Your task to perform on an android device: toggle show notifications on the lock screen Image 0: 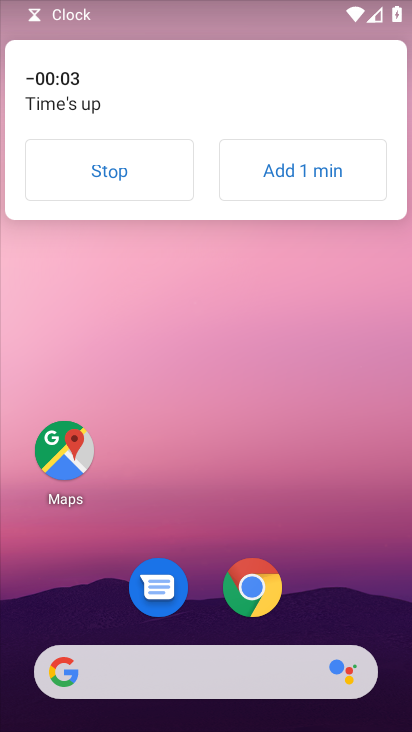
Step 0: drag from (245, 698) to (288, 203)
Your task to perform on an android device: toggle show notifications on the lock screen Image 1: 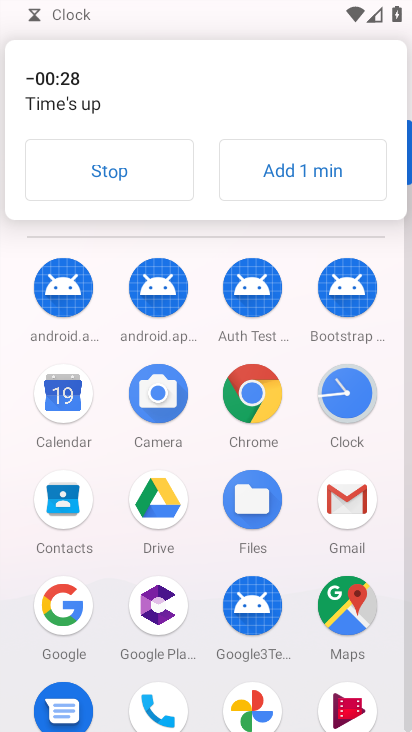
Step 1: click (91, 165)
Your task to perform on an android device: toggle show notifications on the lock screen Image 2: 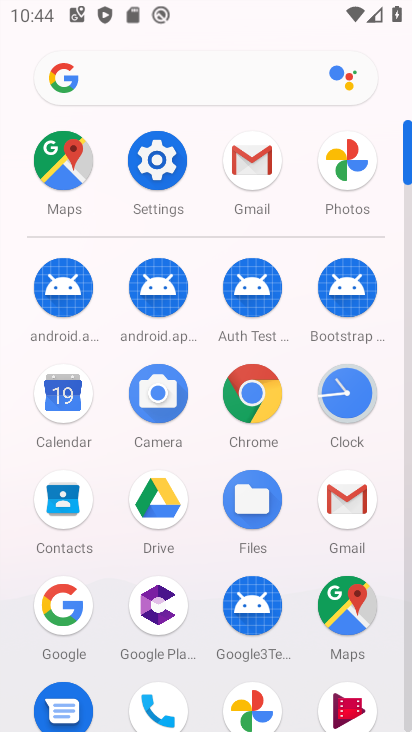
Step 2: click (161, 164)
Your task to perform on an android device: toggle show notifications on the lock screen Image 3: 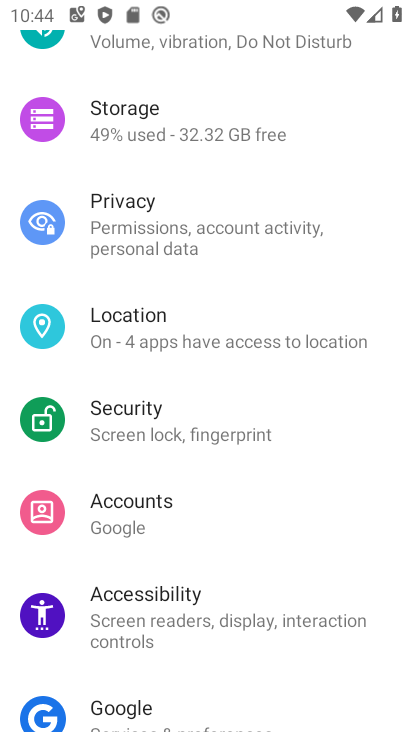
Step 3: drag from (163, 233) to (115, 731)
Your task to perform on an android device: toggle show notifications on the lock screen Image 4: 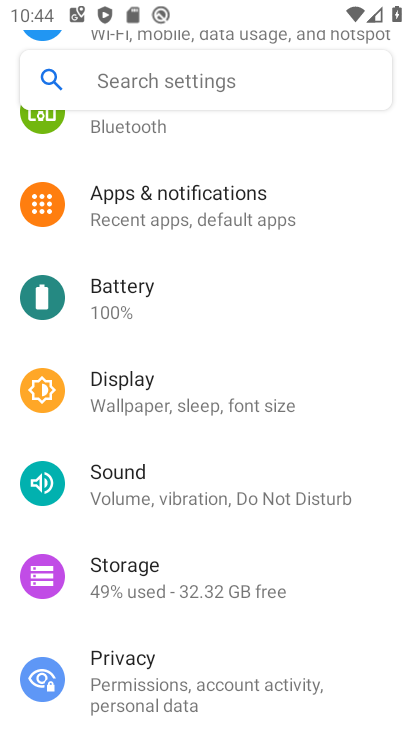
Step 4: click (190, 204)
Your task to perform on an android device: toggle show notifications on the lock screen Image 5: 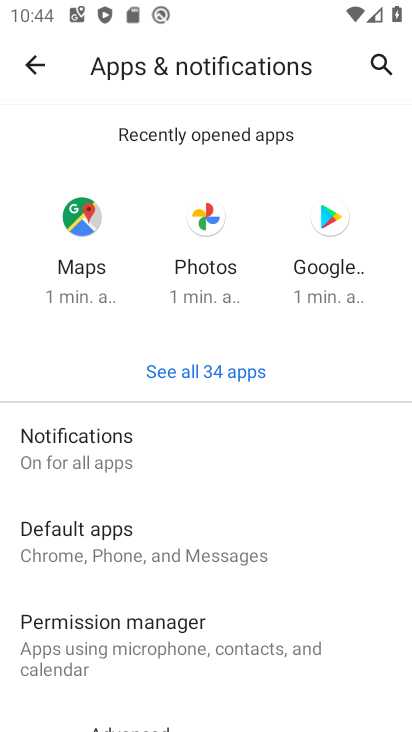
Step 5: click (138, 444)
Your task to perform on an android device: toggle show notifications on the lock screen Image 6: 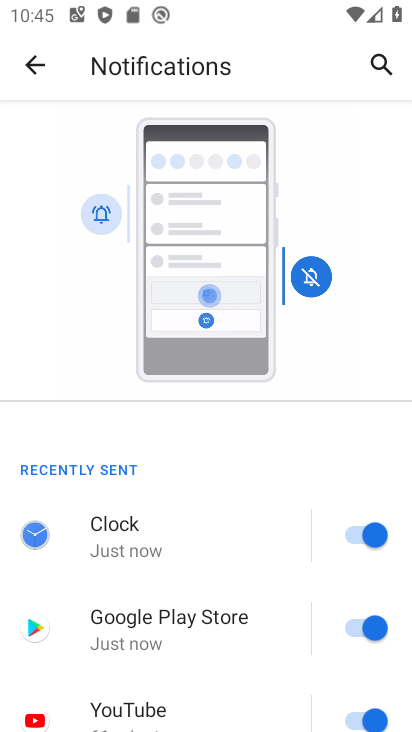
Step 6: drag from (150, 668) to (149, 276)
Your task to perform on an android device: toggle show notifications on the lock screen Image 7: 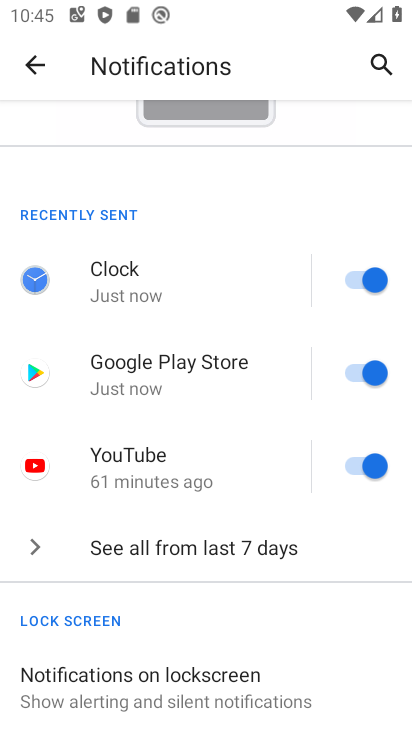
Step 7: drag from (216, 659) to (181, 299)
Your task to perform on an android device: toggle show notifications on the lock screen Image 8: 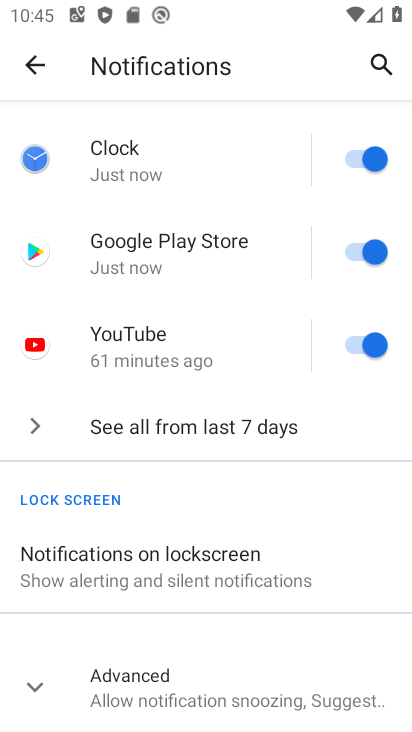
Step 8: click (174, 556)
Your task to perform on an android device: toggle show notifications on the lock screen Image 9: 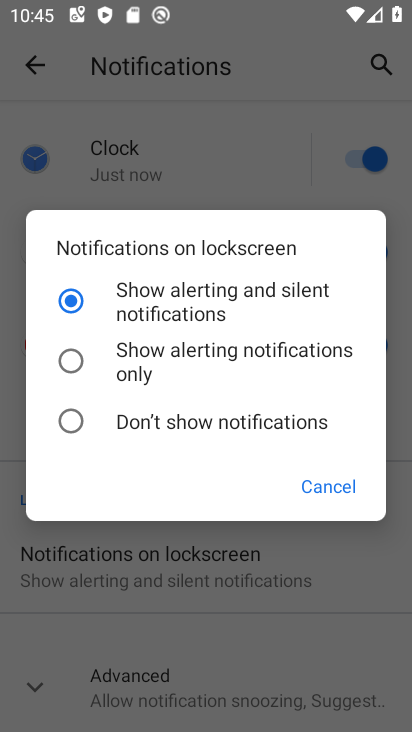
Step 9: click (168, 326)
Your task to perform on an android device: toggle show notifications on the lock screen Image 10: 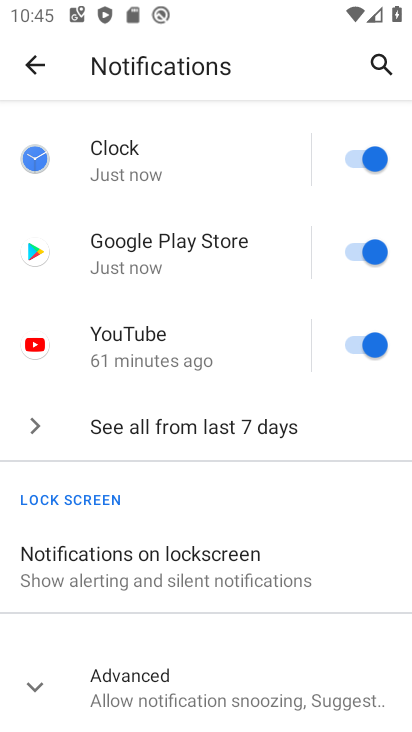
Step 10: task complete